Your task to perform on an android device: When is my next meeting? Image 0: 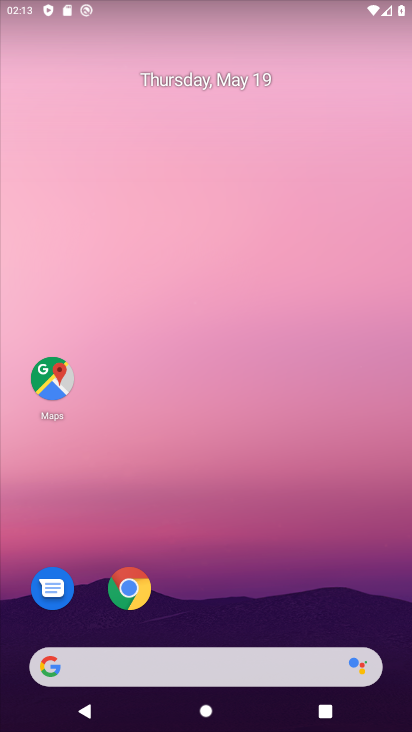
Step 0: drag from (219, 591) to (195, 132)
Your task to perform on an android device: When is my next meeting? Image 1: 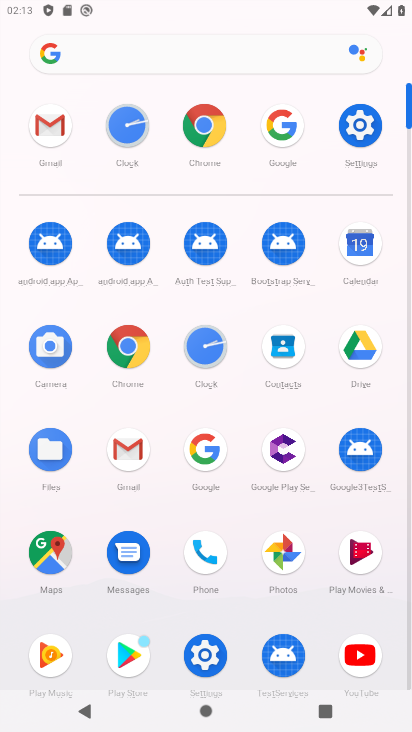
Step 1: click (355, 242)
Your task to perform on an android device: When is my next meeting? Image 2: 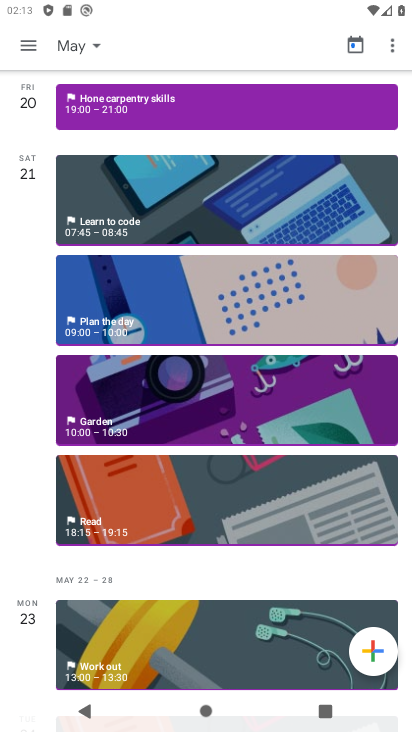
Step 2: click (84, 44)
Your task to perform on an android device: When is my next meeting? Image 3: 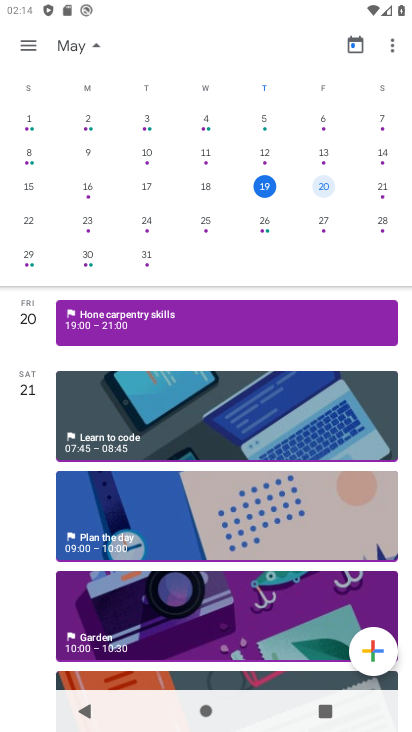
Step 3: click (373, 188)
Your task to perform on an android device: When is my next meeting? Image 4: 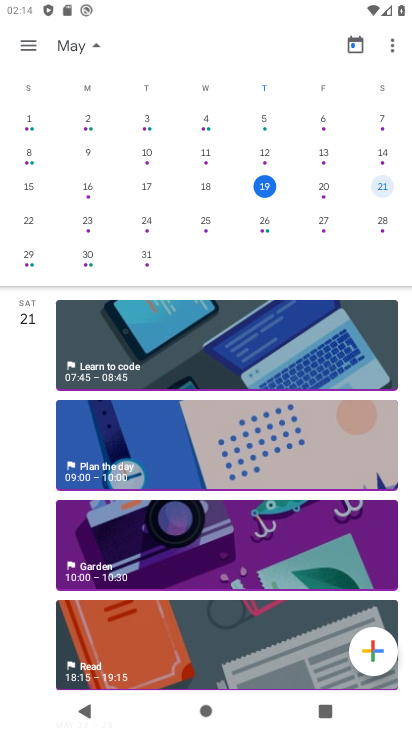
Step 4: task complete